Your task to perform on an android device: Go to CNN.com Image 0: 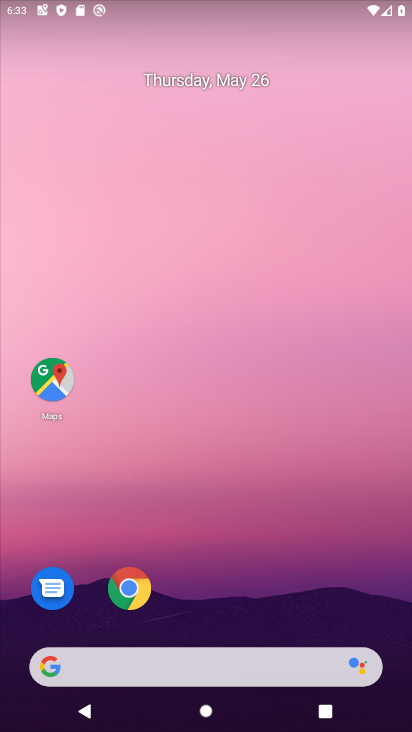
Step 0: drag from (394, 628) to (288, 29)
Your task to perform on an android device: Go to CNN.com Image 1: 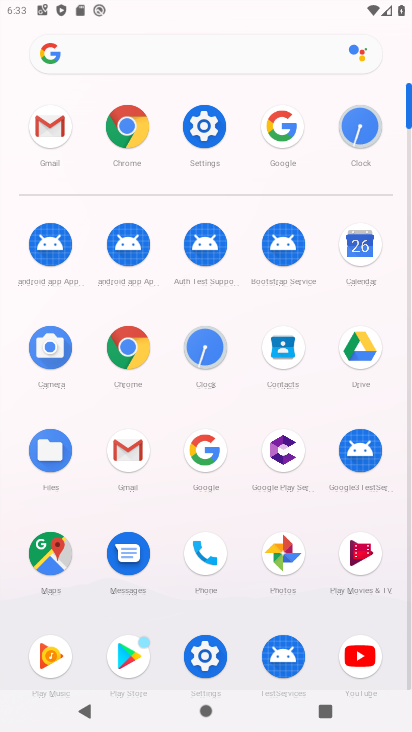
Step 1: click (212, 443)
Your task to perform on an android device: Go to CNN.com Image 2: 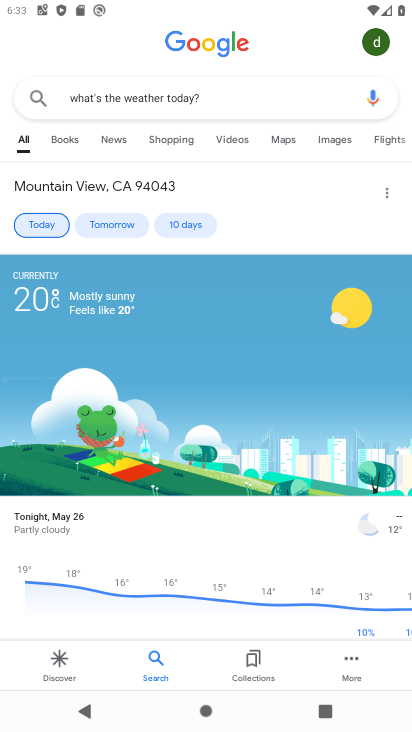
Step 2: press back button
Your task to perform on an android device: Go to CNN.com Image 3: 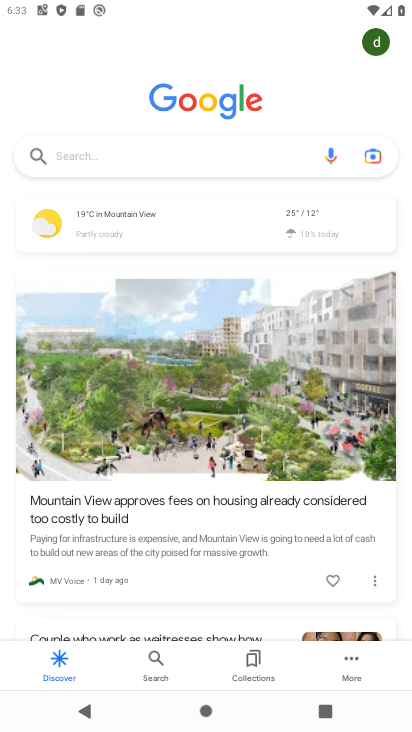
Step 3: click (104, 130)
Your task to perform on an android device: Go to CNN.com Image 4: 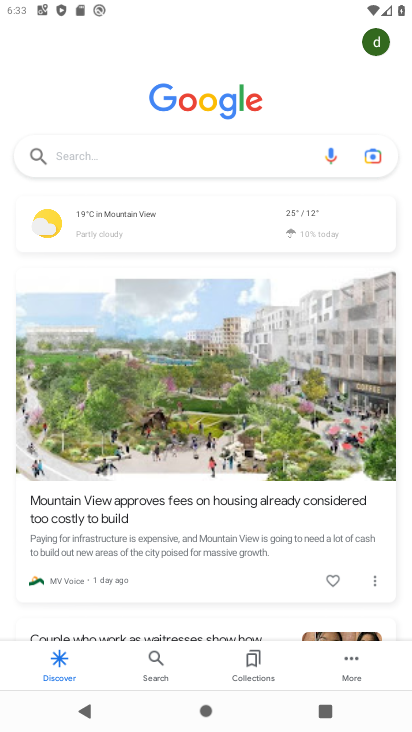
Step 4: click (132, 146)
Your task to perform on an android device: Go to CNN.com Image 5: 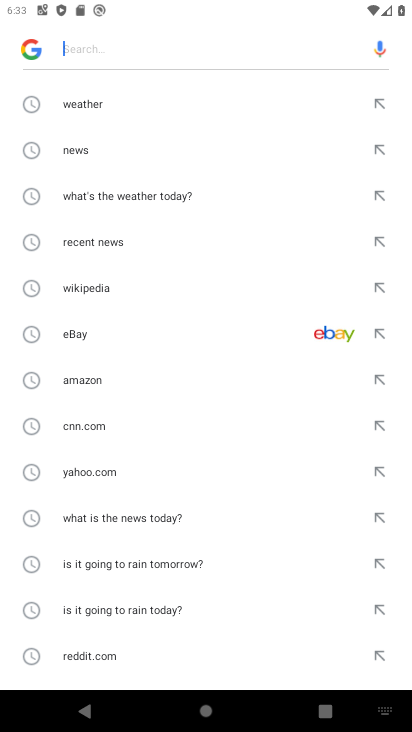
Step 5: click (124, 430)
Your task to perform on an android device: Go to CNN.com Image 6: 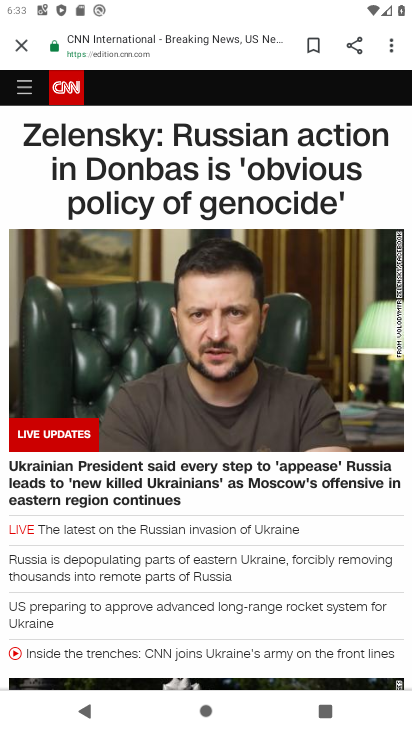
Step 6: task complete